Your task to perform on an android device: What's on my calendar tomorrow? Image 0: 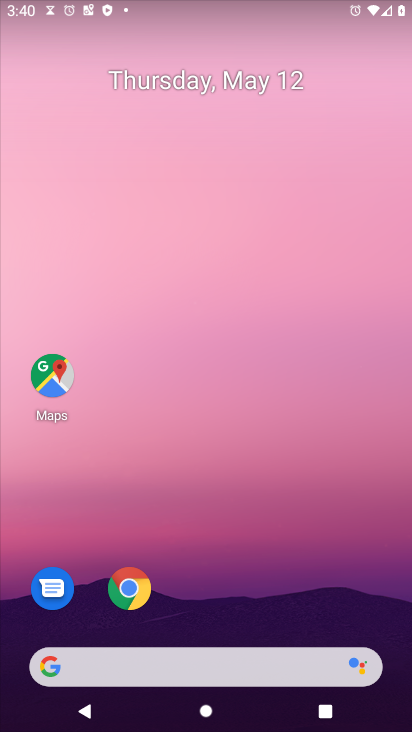
Step 0: drag from (254, 520) to (194, 28)
Your task to perform on an android device: What's on my calendar tomorrow? Image 1: 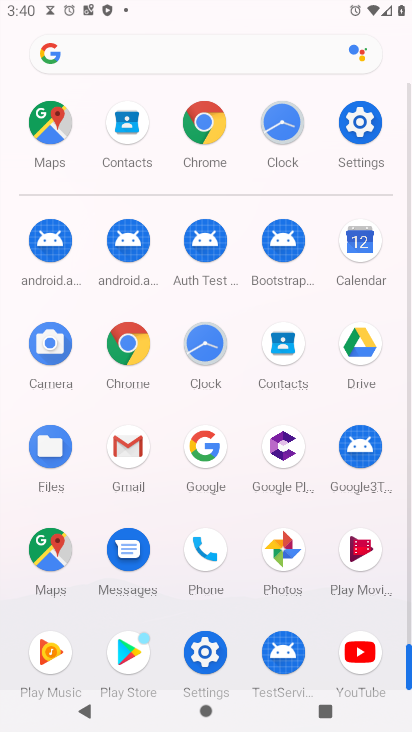
Step 1: drag from (3, 530) to (3, 258)
Your task to perform on an android device: What's on my calendar tomorrow? Image 2: 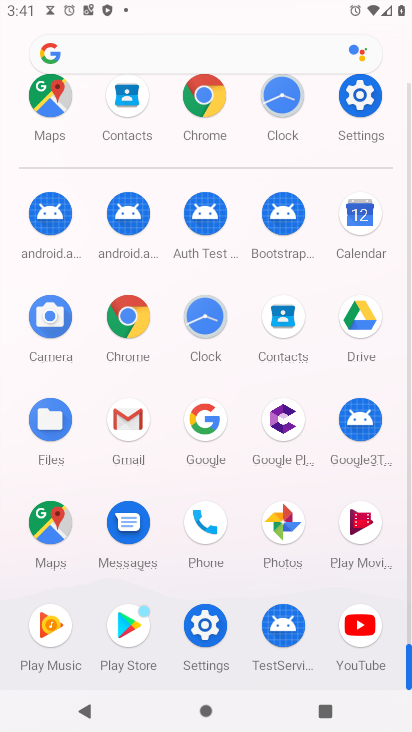
Step 2: click (349, 212)
Your task to perform on an android device: What's on my calendar tomorrow? Image 3: 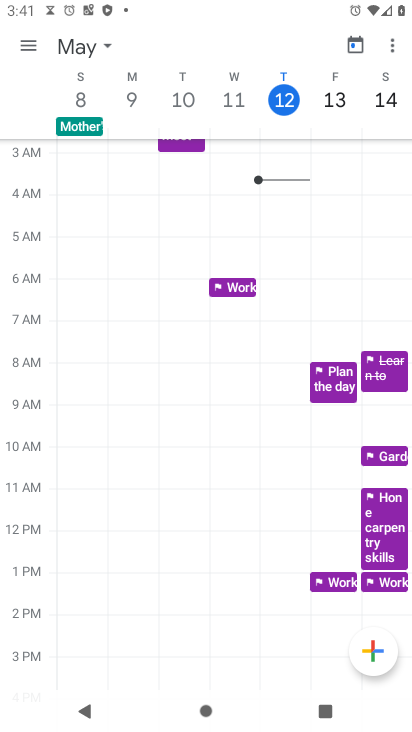
Step 3: click (340, 92)
Your task to perform on an android device: What's on my calendar tomorrow? Image 4: 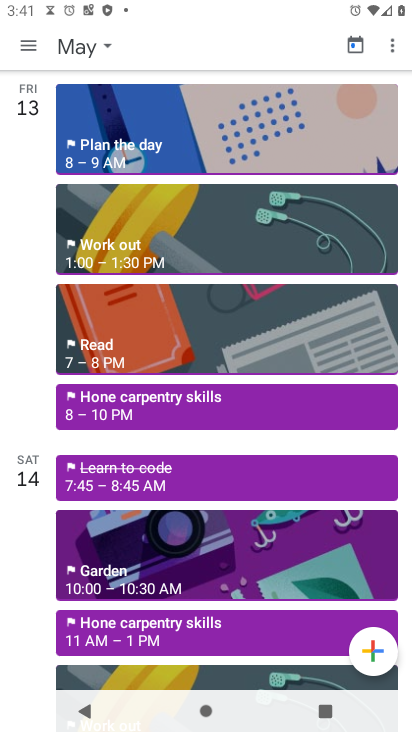
Step 4: task complete